Your task to perform on an android device: check the backup settings in the google photos Image 0: 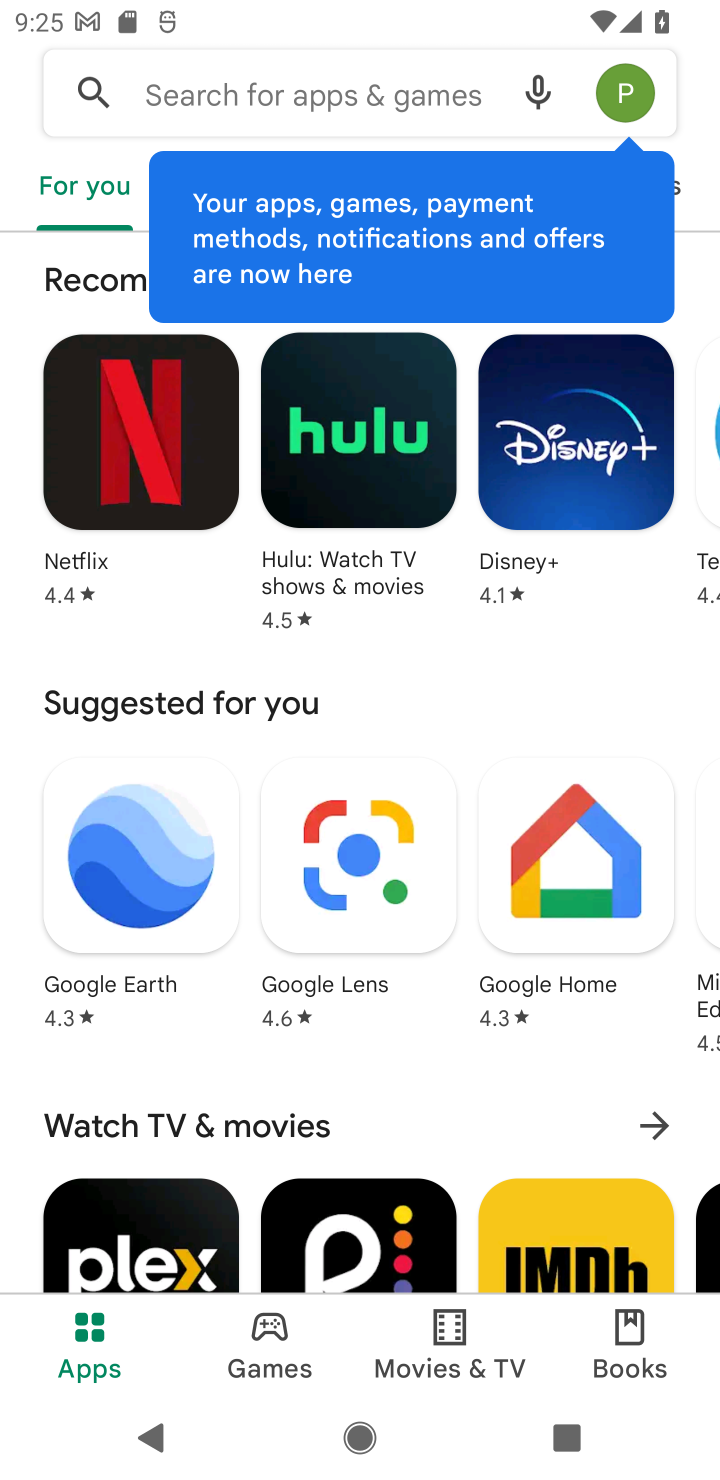
Step 0: press back button
Your task to perform on an android device: check the backup settings in the google photos Image 1: 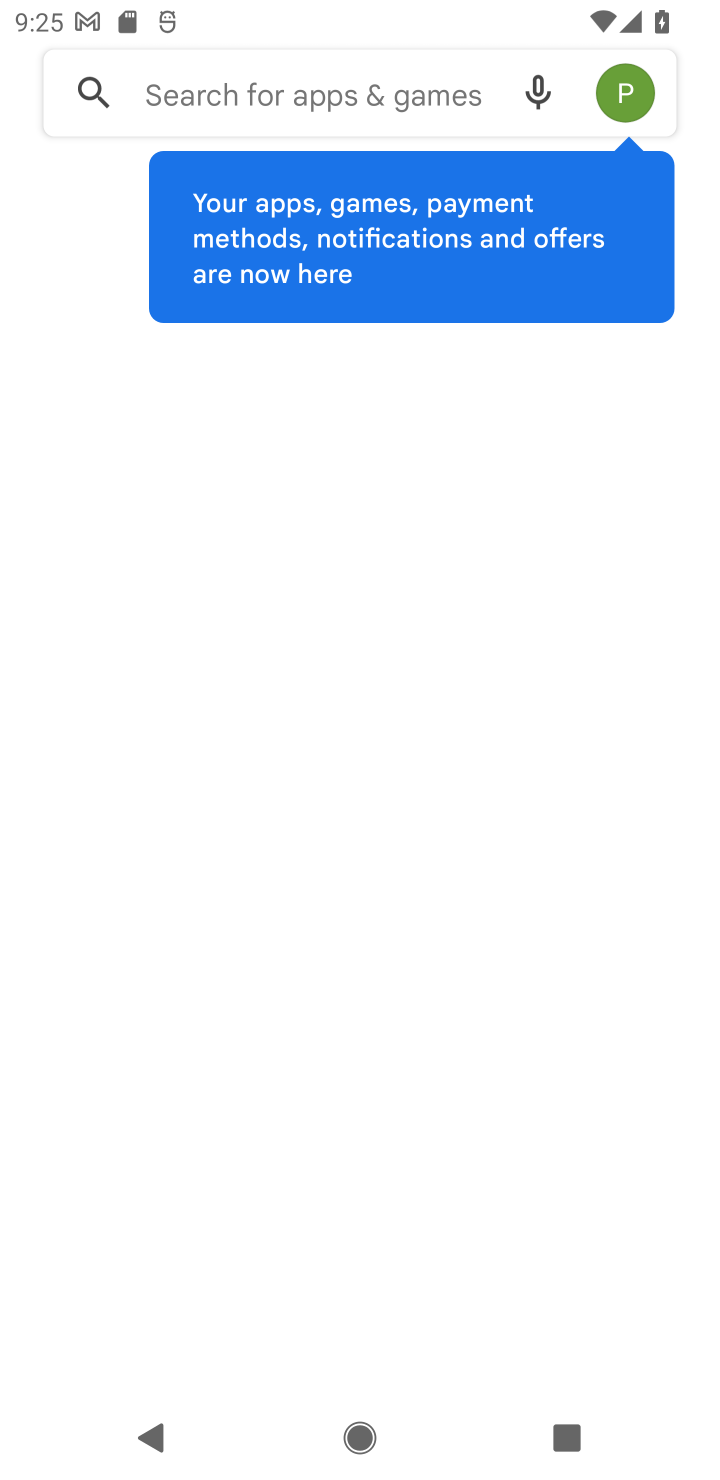
Step 1: press back button
Your task to perform on an android device: check the backup settings in the google photos Image 2: 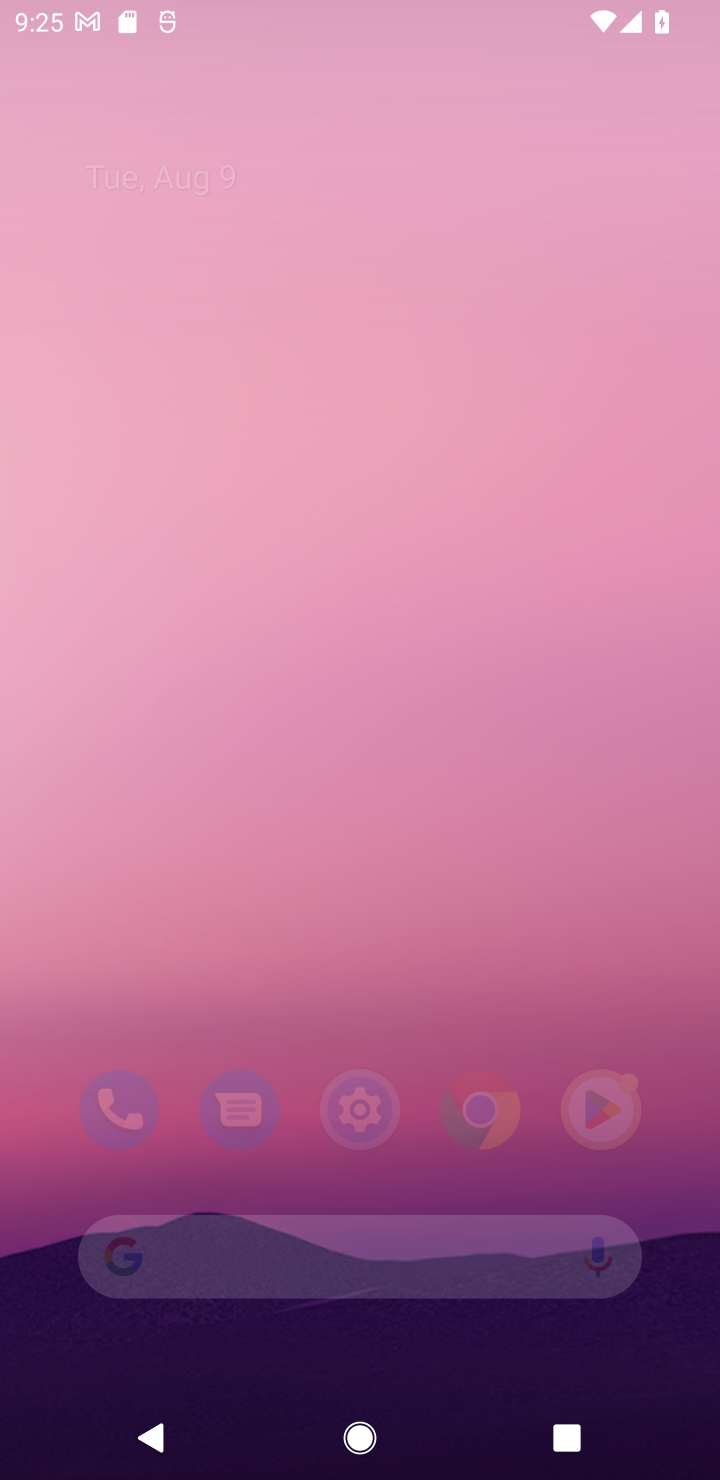
Step 2: press back button
Your task to perform on an android device: check the backup settings in the google photos Image 3: 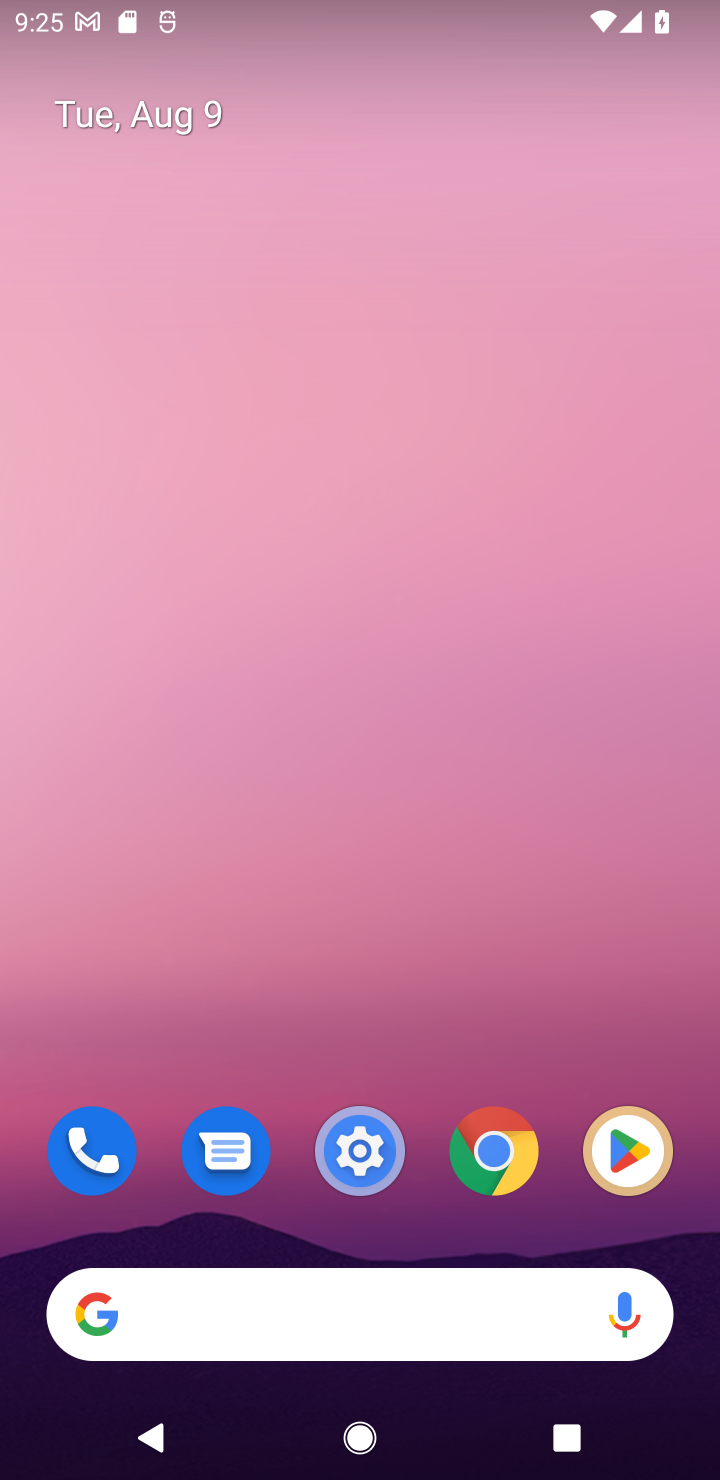
Step 3: drag from (413, 1144) to (257, 13)
Your task to perform on an android device: check the backup settings in the google photos Image 4: 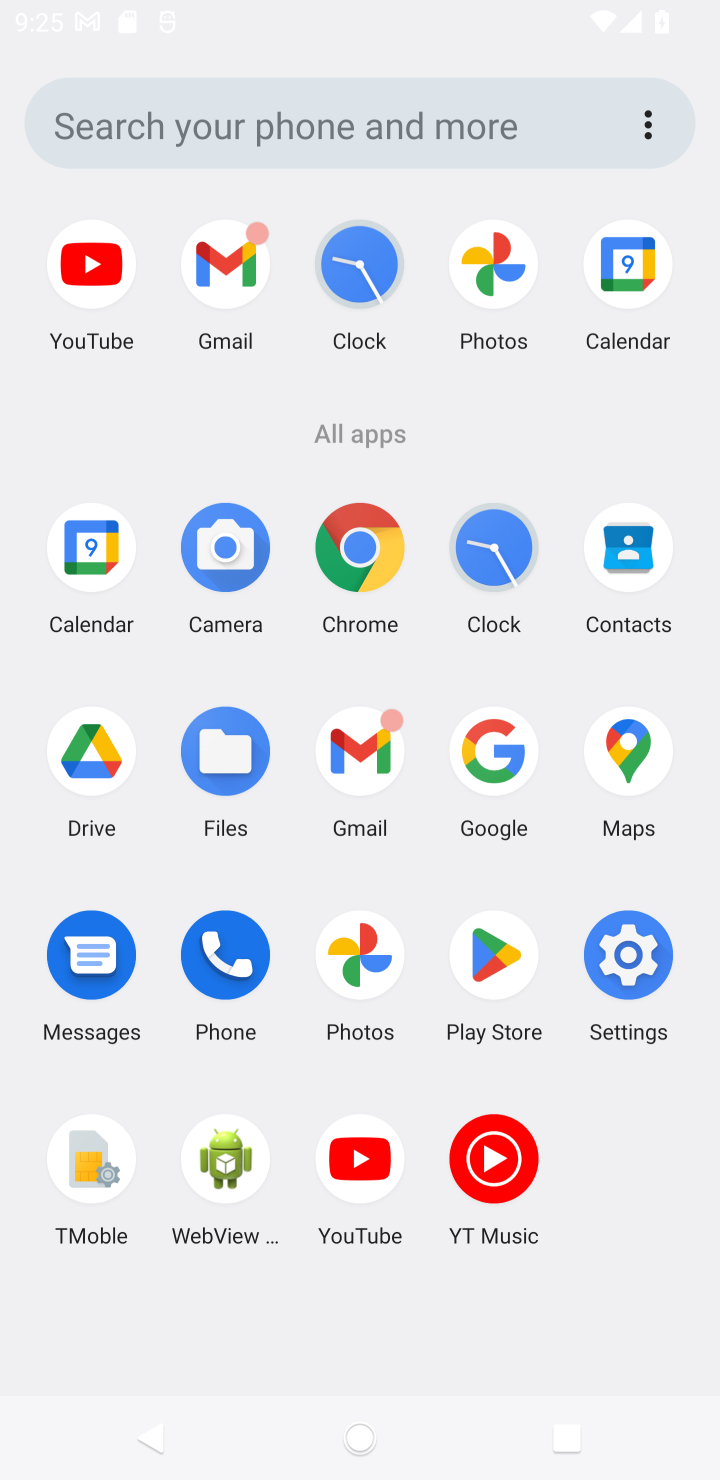
Step 4: drag from (466, 740) to (400, 35)
Your task to perform on an android device: check the backup settings in the google photos Image 5: 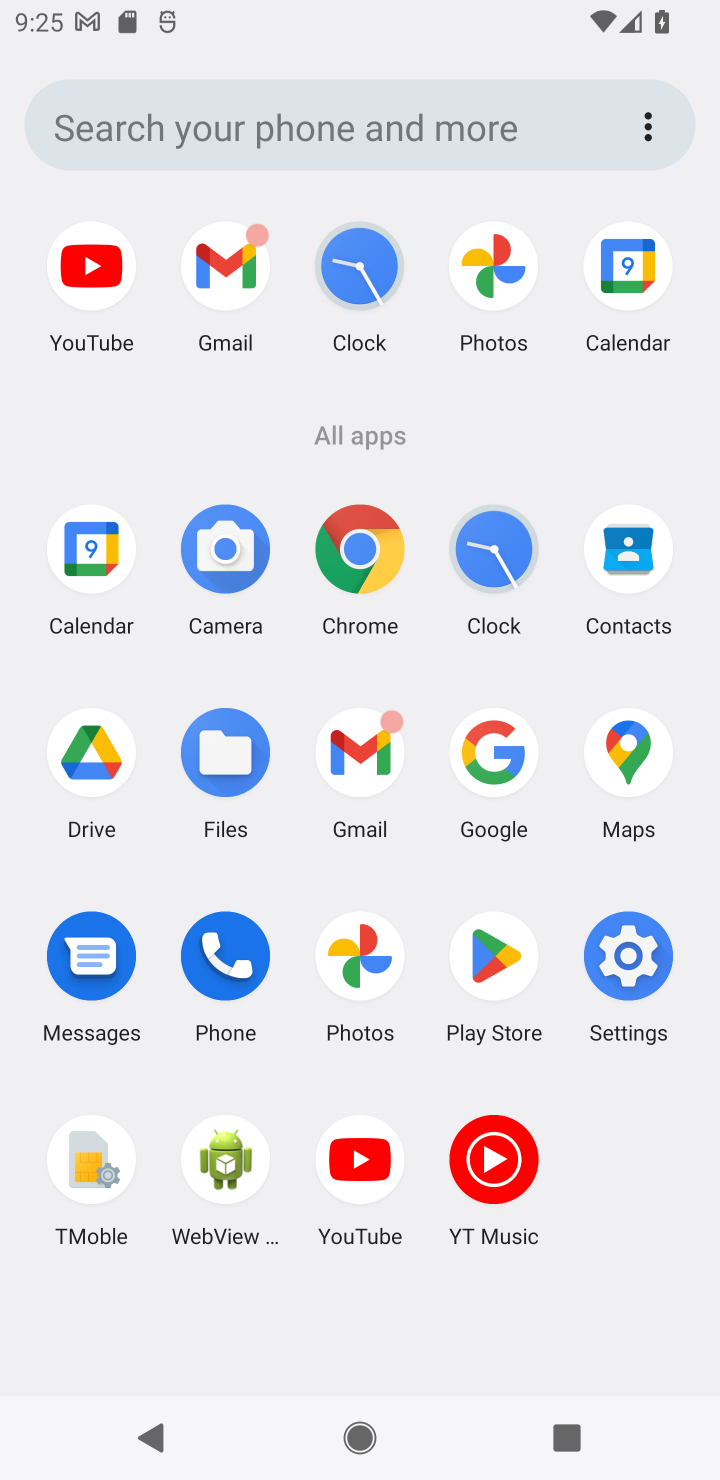
Step 5: click (343, 957)
Your task to perform on an android device: check the backup settings in the google photos Image 6: 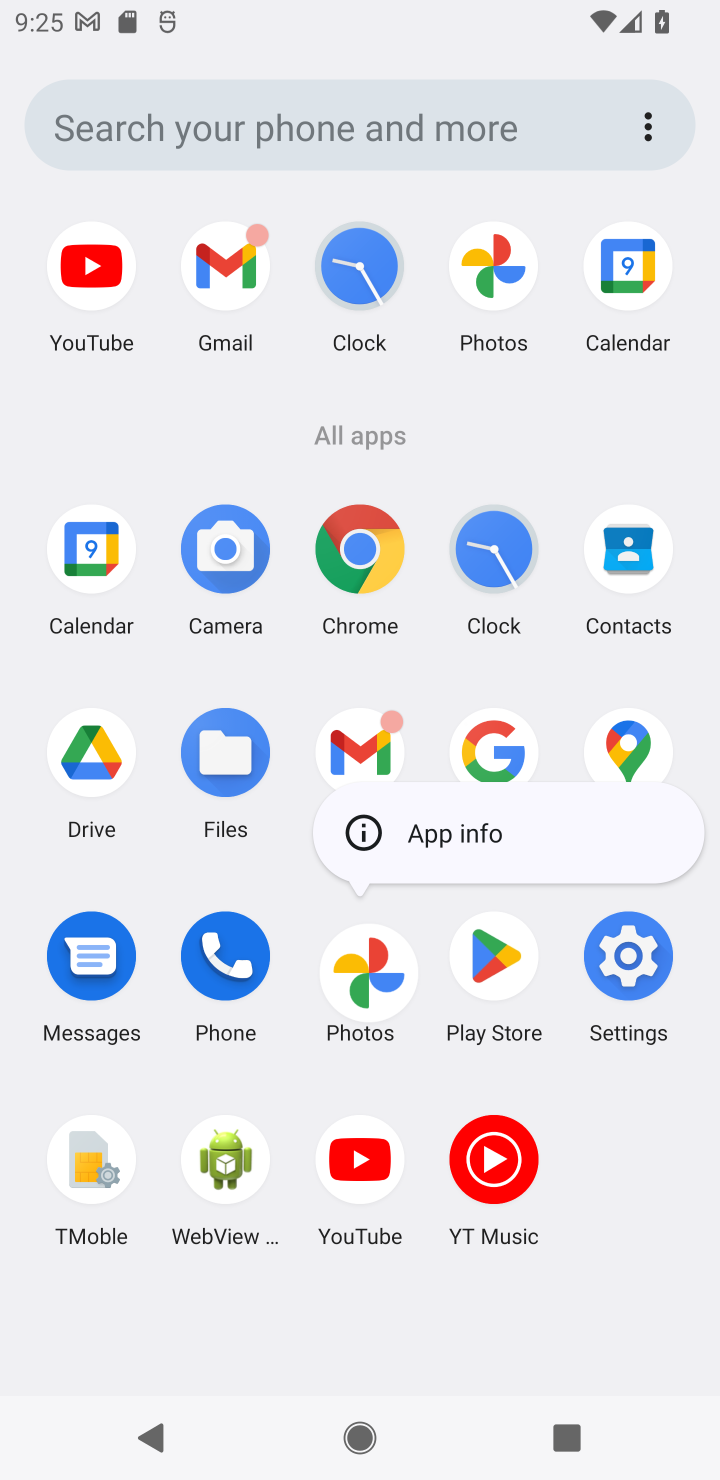
Step 6: click (352, 974)
Your task to perform on an android device: check the backup settings in the google photos Image 7: 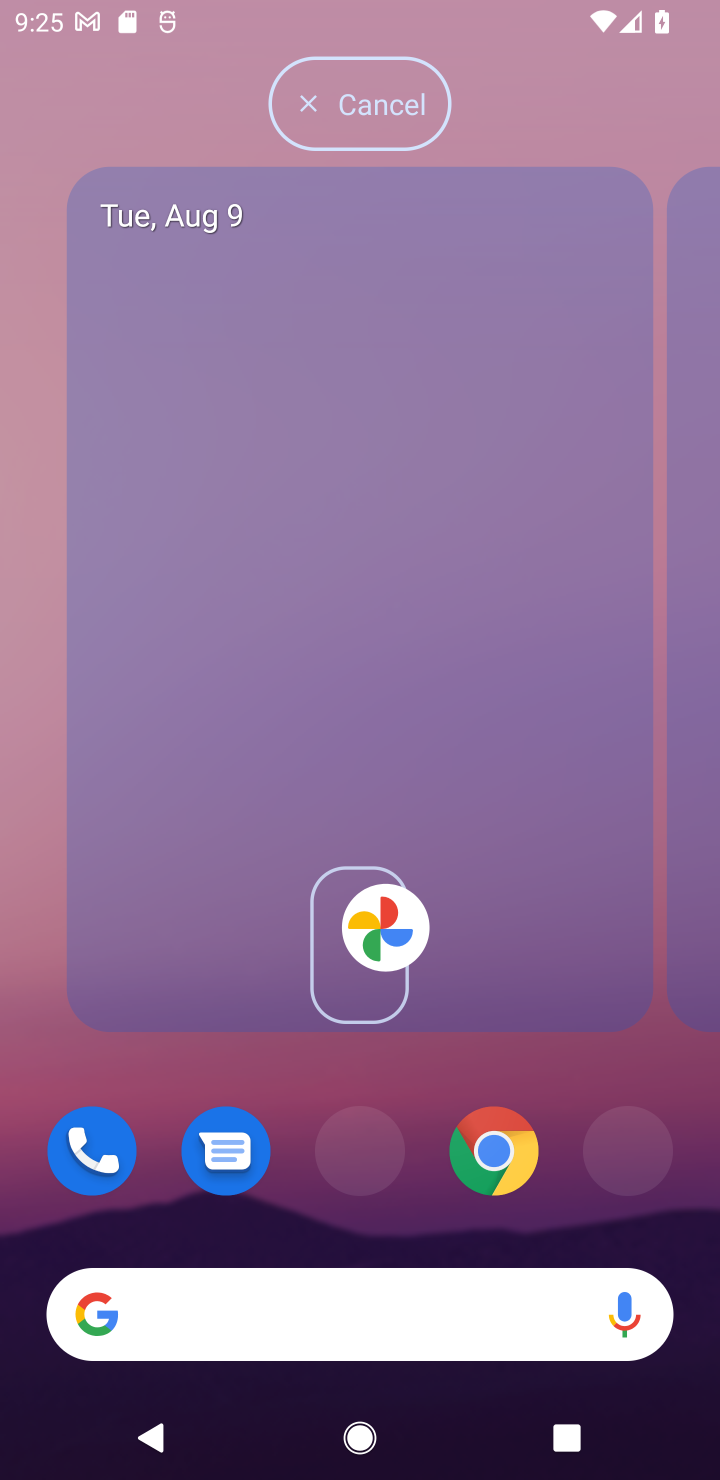
Step 7: click (378, 932)
Your task to perform on an android device: check the backup settings in the google photos Image 8: 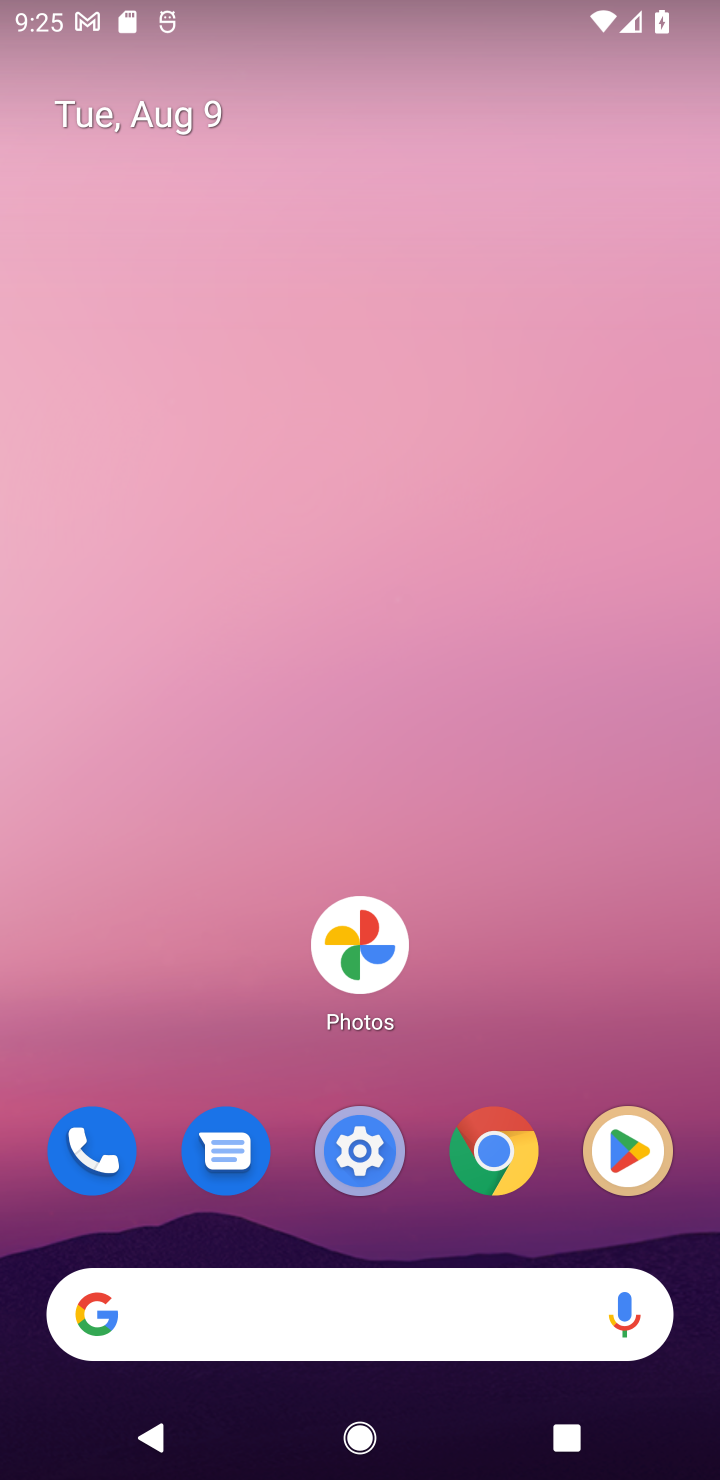
Step 8: drag from (311, 506) to (390, 183)
Your task to perform on an android device: check the backup settings in the google photos Image 9: 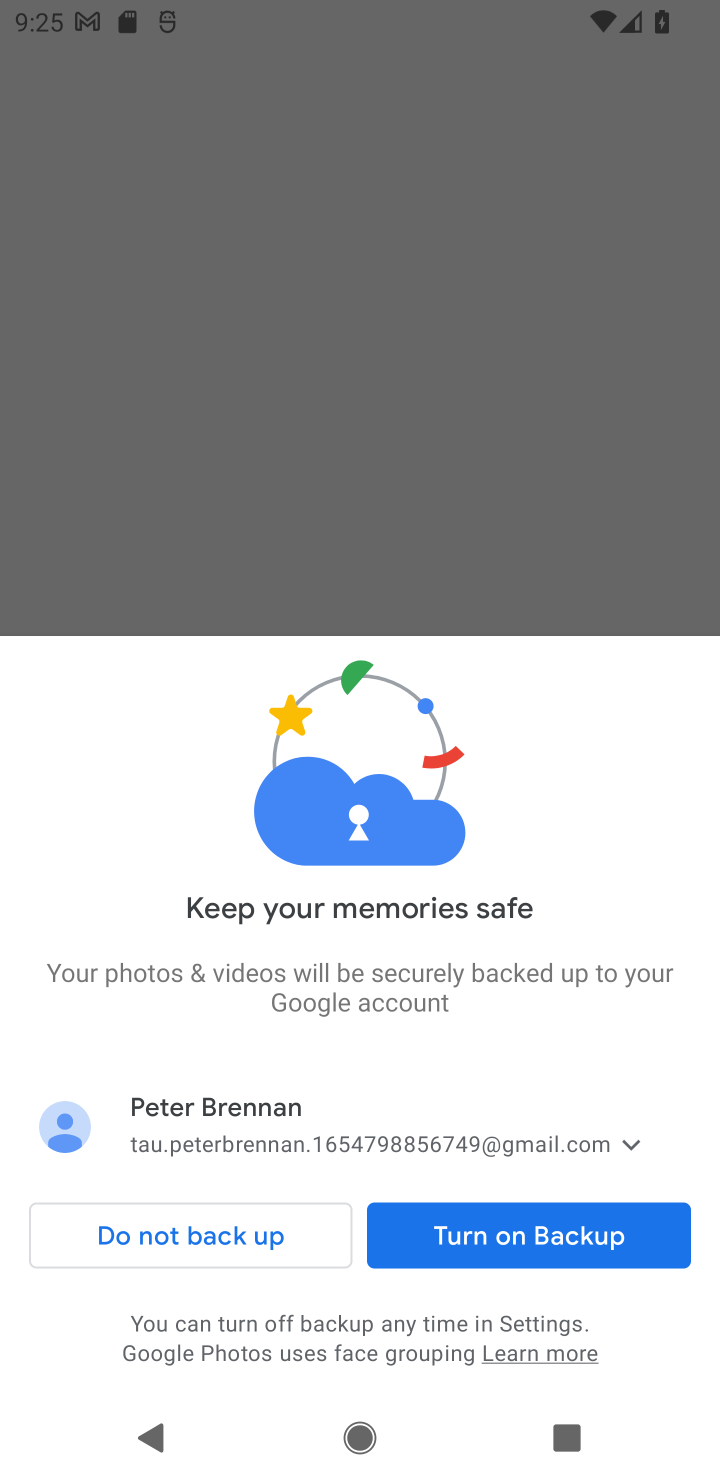
Step 9: click (194, 1222)
Your task to perform on an android device: check the backup settings in the google photos Image 10: 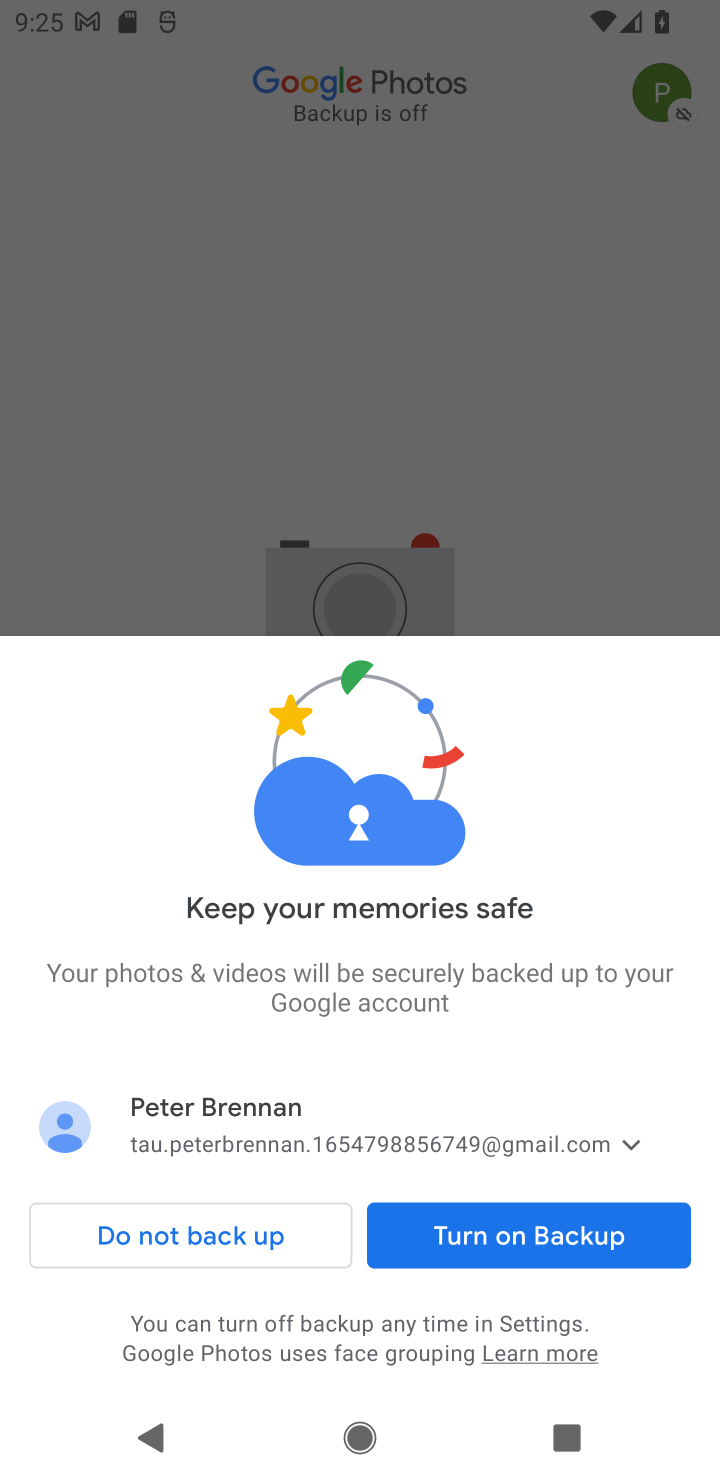
Step 10: click (198, 1212)
Your task to perform on an android device: check the backup settings in the google photos Image 11: 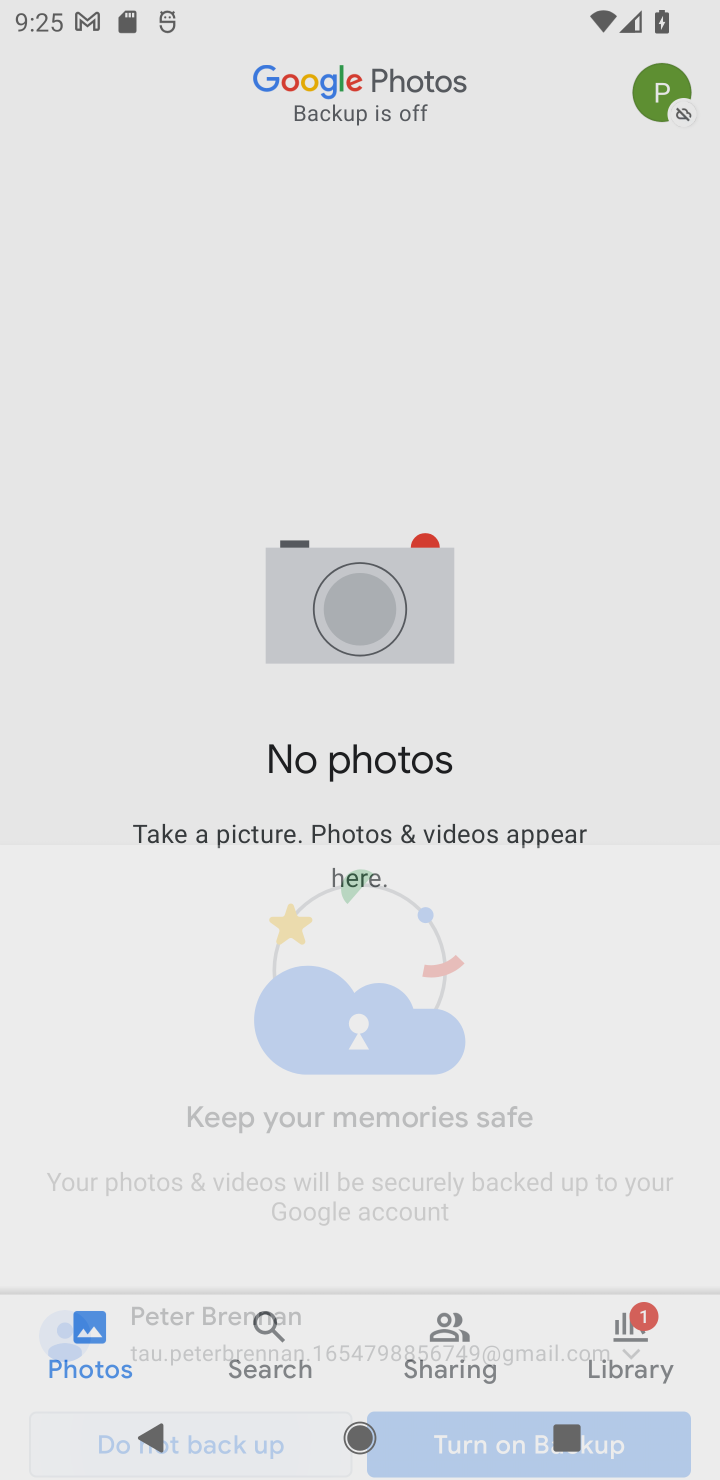
Step 11: click (192, 1208)
Your task to perform on an android device: check the backup settings in the google photos Image 12: 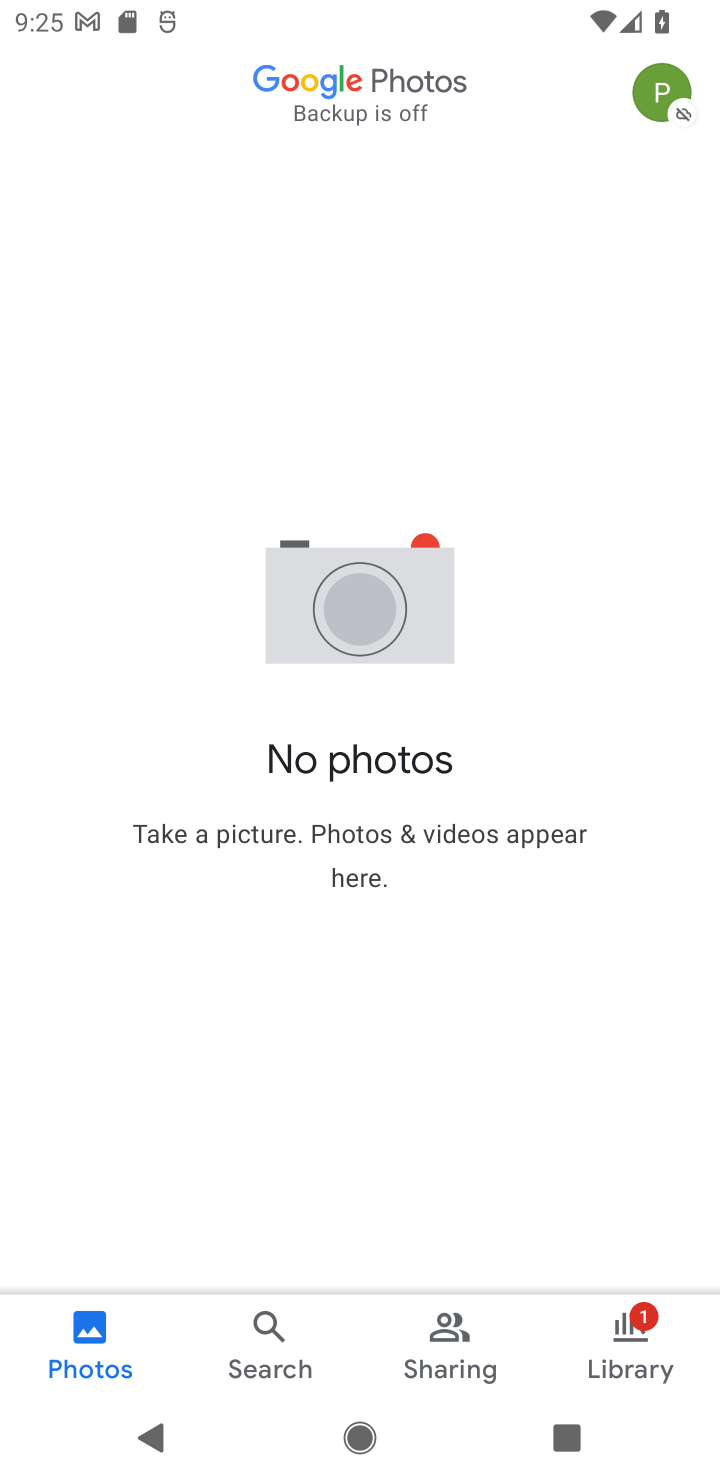
Step 12: click (680, 98)
Your task to perform on an android device: check the backup settings in the google photos Image 13: 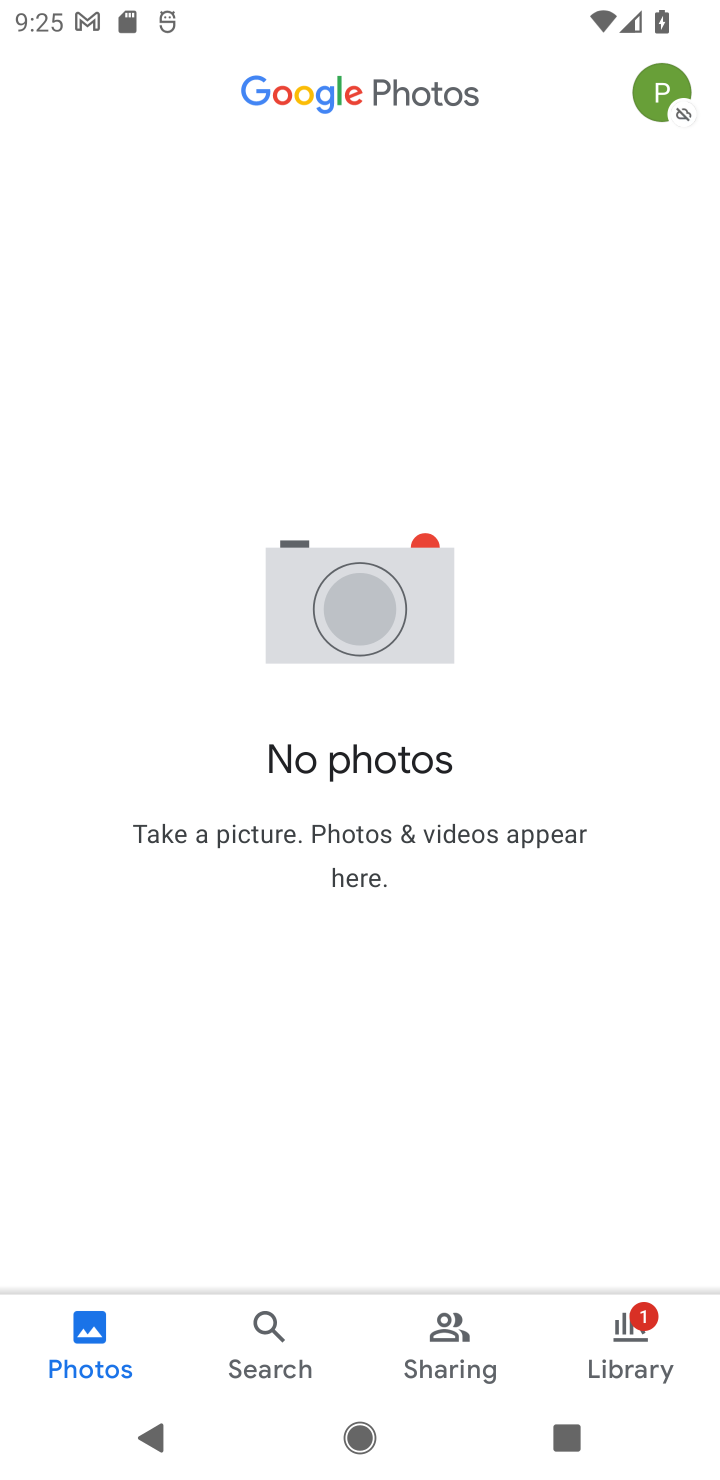
Step 13: click (682, 117)
Your task to perform on an android device: check the backup settings in the google photos Image 14: 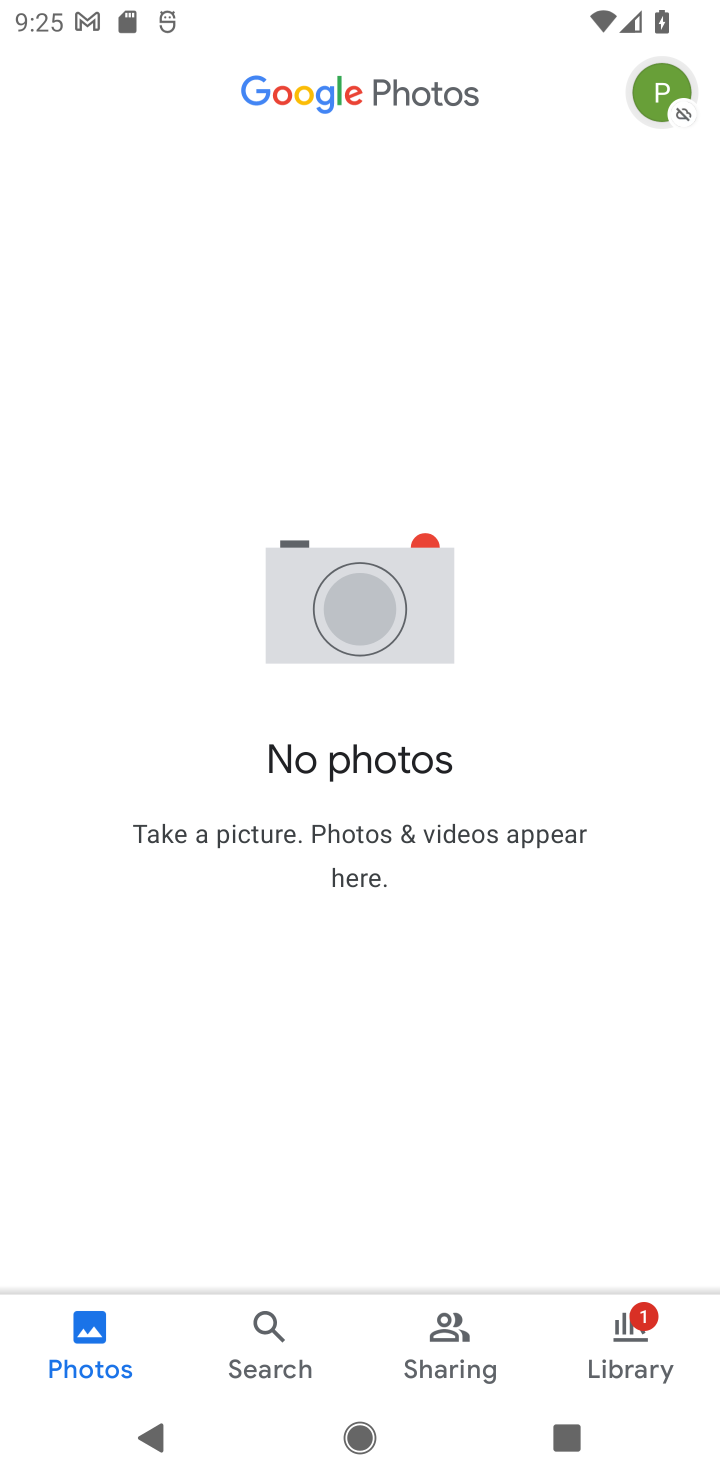
Step 14: click (682, 117)
Your task to perform on an android device: check the backup settings in the google photos Image 15: 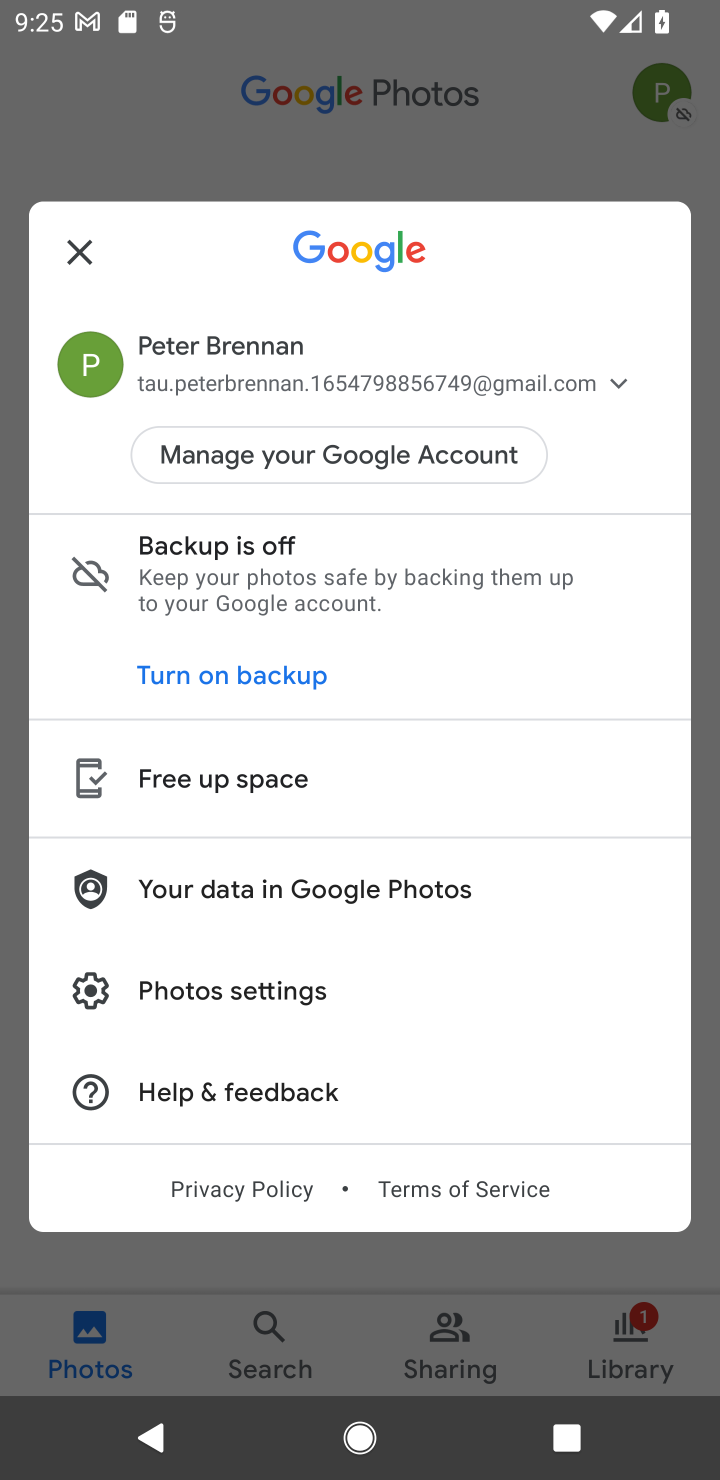
Step 15: click (218, 543)
Your task to perform on an android device: check the backup settings in the google photos Image 16: 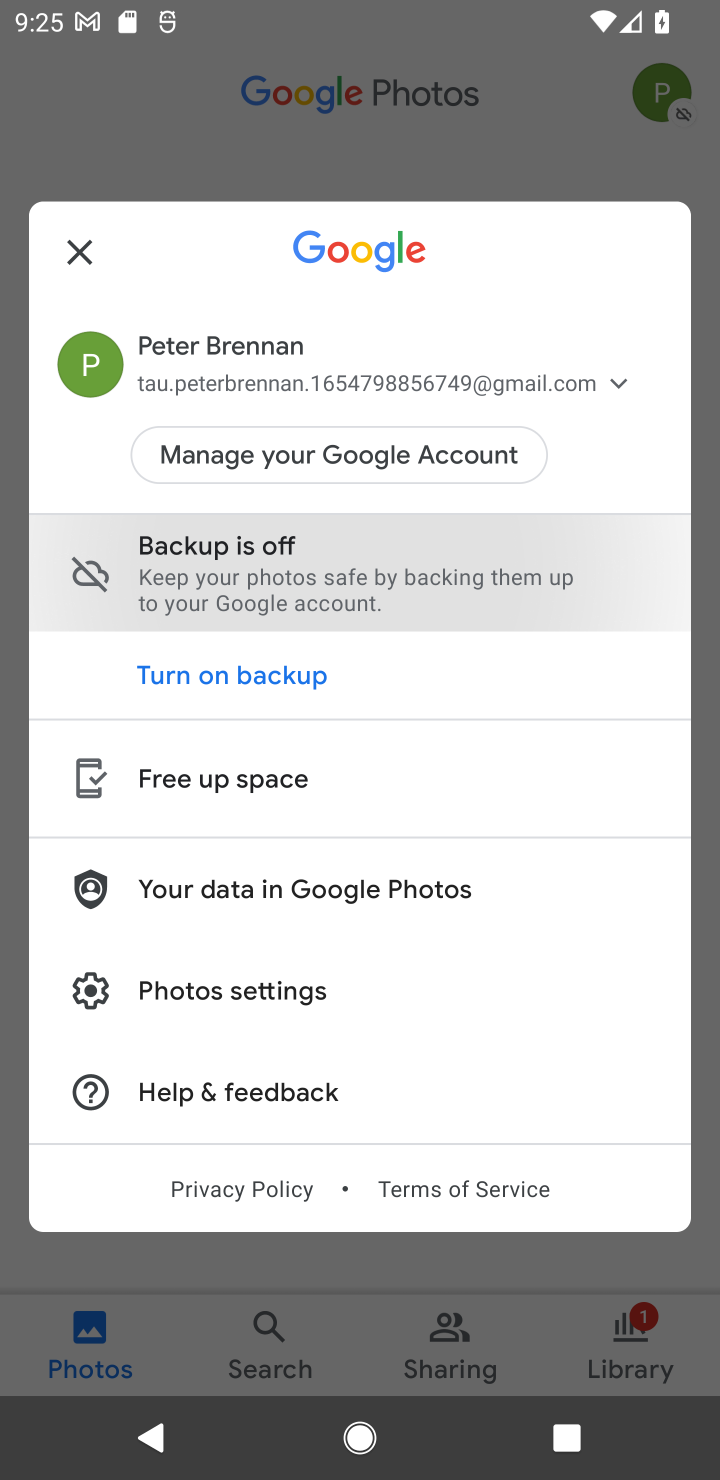
Step 16: click (222, 557)
Your task to perform on an android device: check the backup settings in the google photos Image 17: 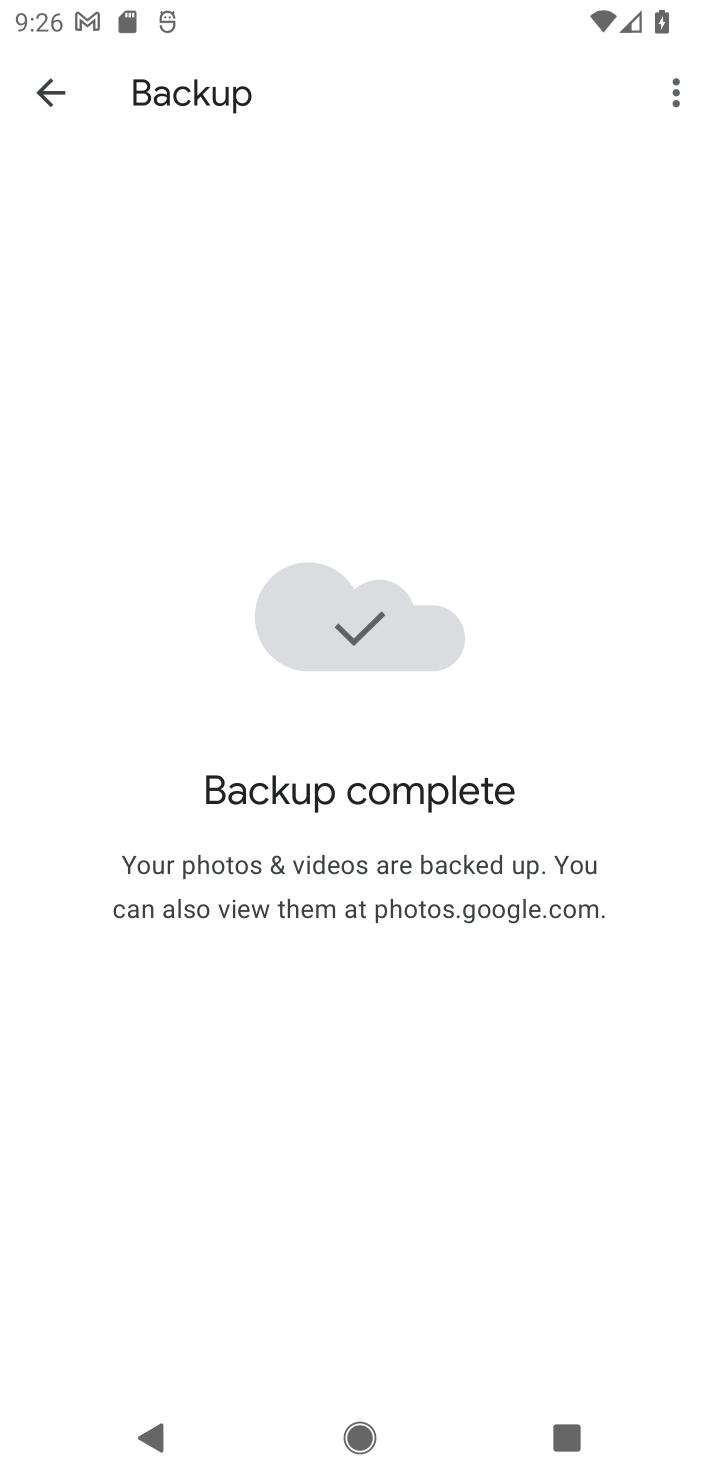
Step 17: task complete